Your task to perform on an android device: turn off improve location accuracy Image 0: 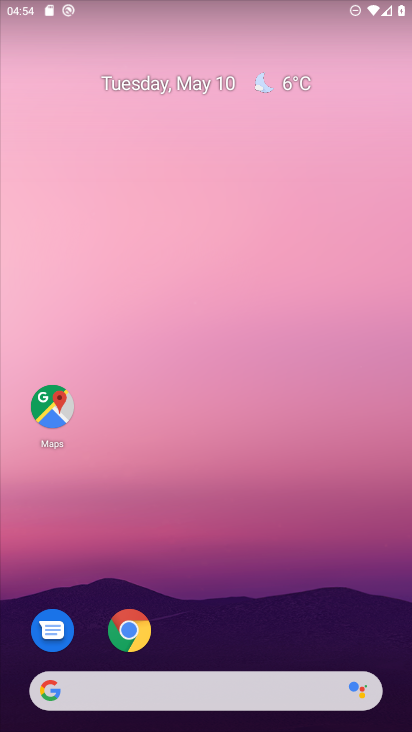
Step 0: drag from (227, 607) to (250, 55)
Your task to perform on an android device: turn off improve location accuracy Image 1: 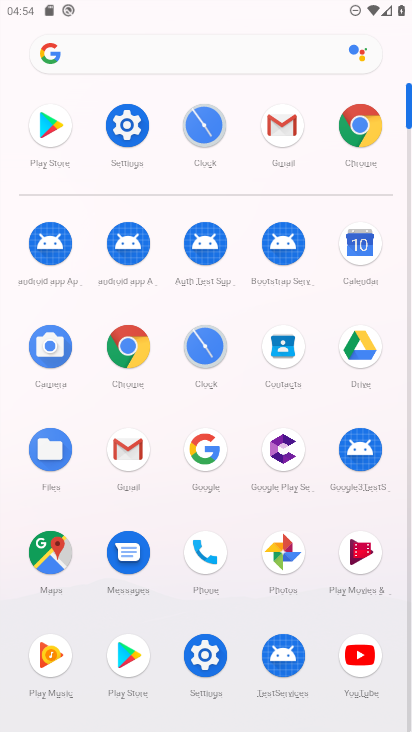
Step 1: click (211, 645)
Your task to perform on an android device: turn off improve location accuracy Image 2: 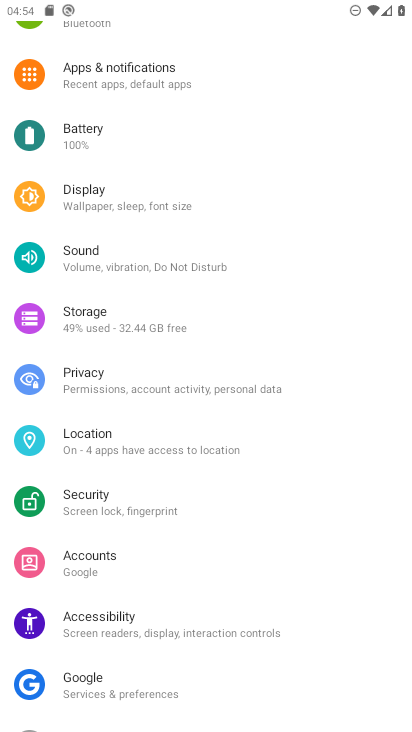
Step 2: click (104, 453)
Your task to perform on an android device: turn off improve location accuracy Image 3: 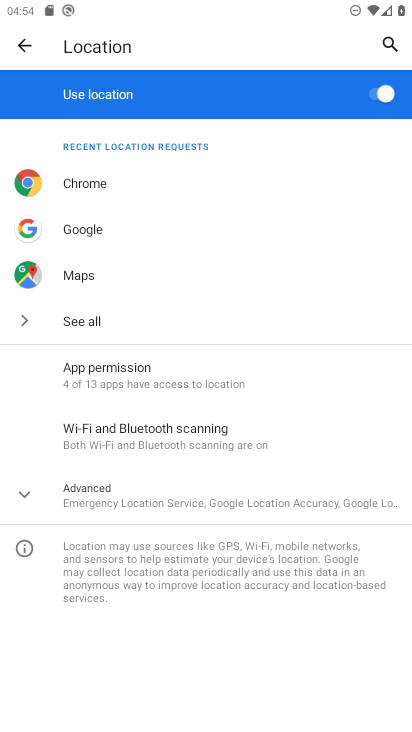
Step 3: click (151, 505)
Your task to perform on an android device: turn off improve location accuracy Image 4: 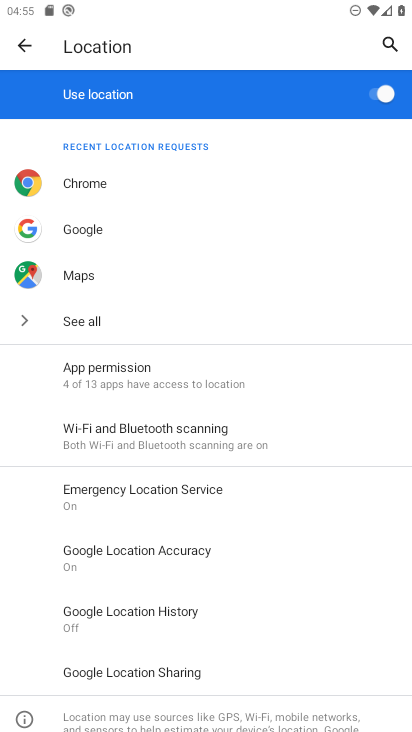
Step 4: click (141, 551)
Your task to perform on an android device: turn off improve location accuracy Image 5: 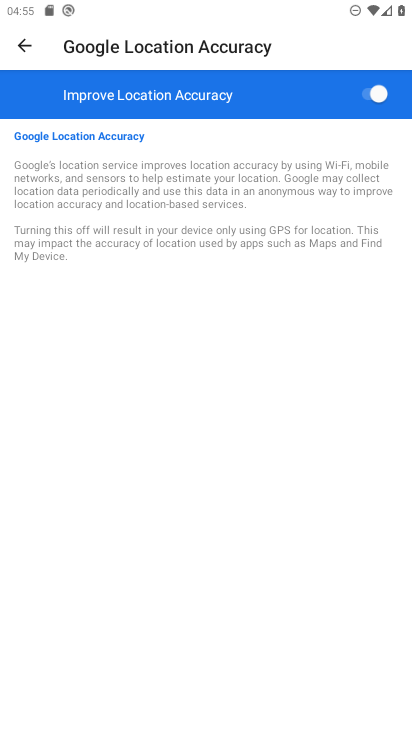
Step 5: click (374, 105)
Your task to perform on an android device: turn off improve location accuracy Image 6: 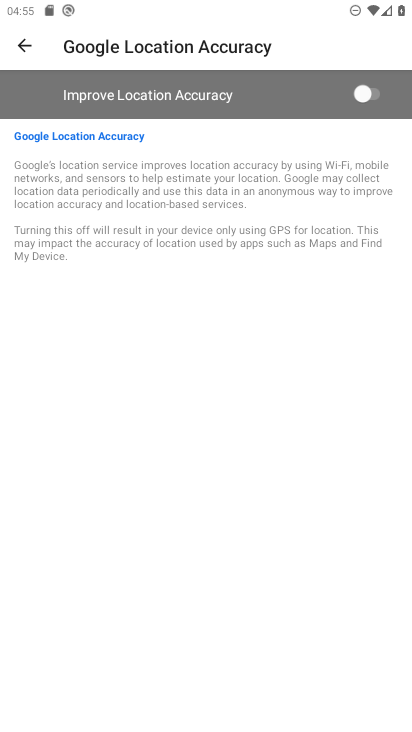
Step 6: task complete